Your task to perform on an android device: find which apps use the phone's location Image 0: 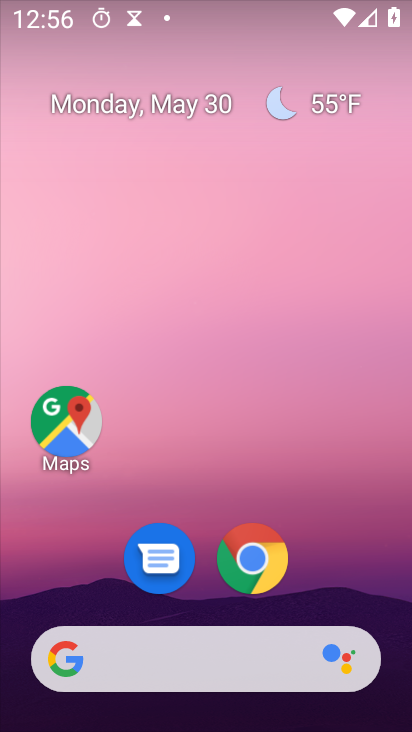
Step 0: drag from (335, 540) to (15, 345)
Your task to perform on an android device: find which apps use the phone's location Image 1: 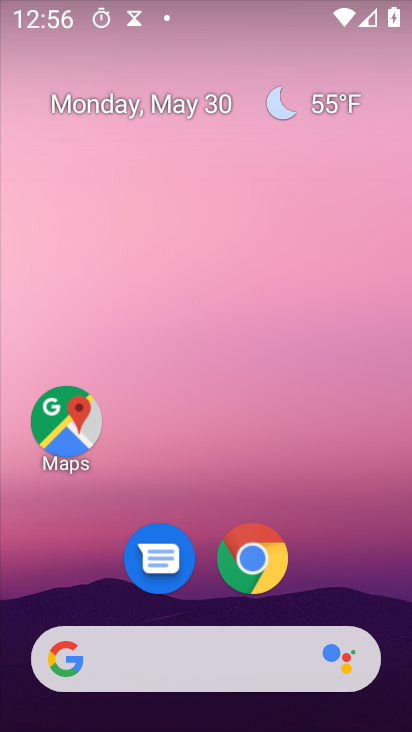
Step 1: drag from (324, 456) to (308, 76)
Your task to perform on an android device: find which apps use the phone's location Image 2: 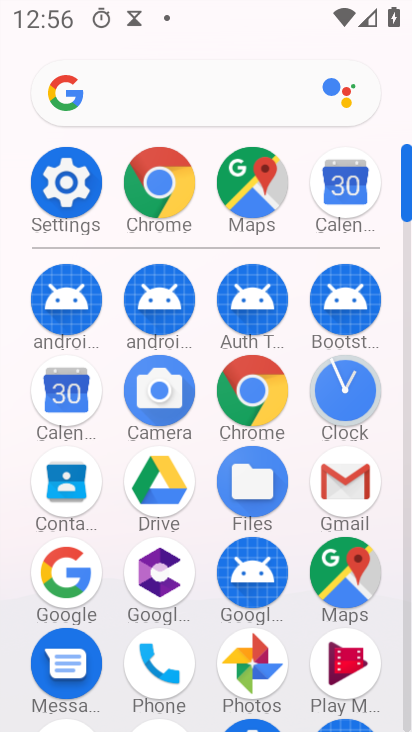
Step 2: click (72, 188)
Your task to perform on an android device: find which apps use the phone's location Image 3: 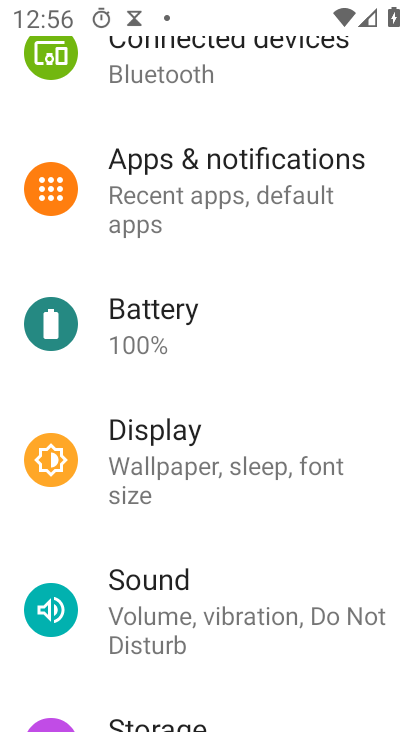
Step 3: drag from (200, 253) to (227, 628)
Your task to perform on an android device: find which apps use the phone's location Image 4: 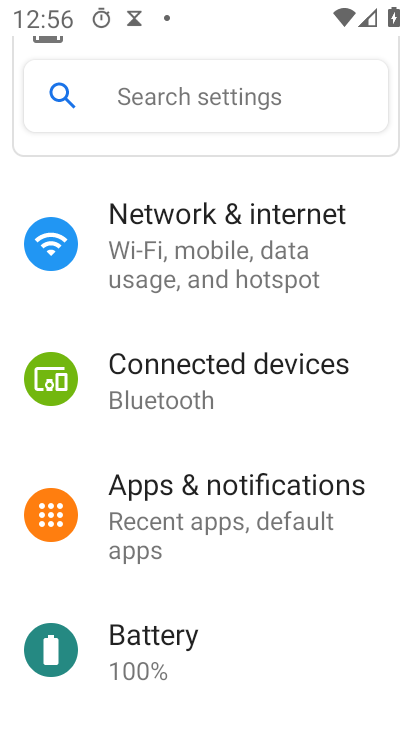
Step 4: drag from (280, 611) to (283, 189)
Your task to perform on an android device: find which apps use the phone's location Image 5: 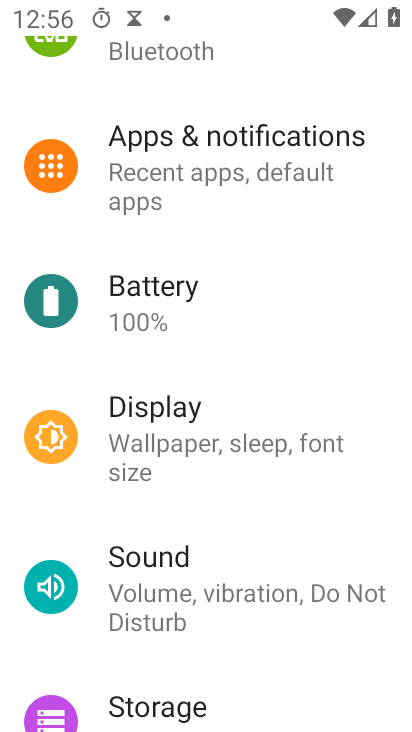
Step 5: drag from (209, 574) to (246, 169)
Your task to perform on an android device: find which apps use the phone's location Image 6: 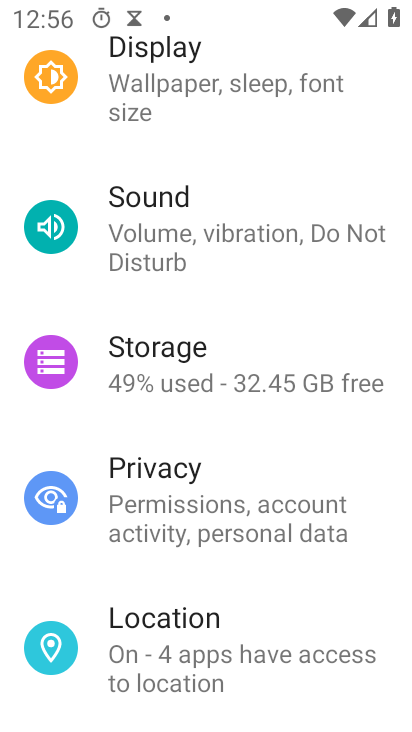
Step 6: click (199, 668)
Your task to perform on an android device: find which apps use the phone's location Image 7: 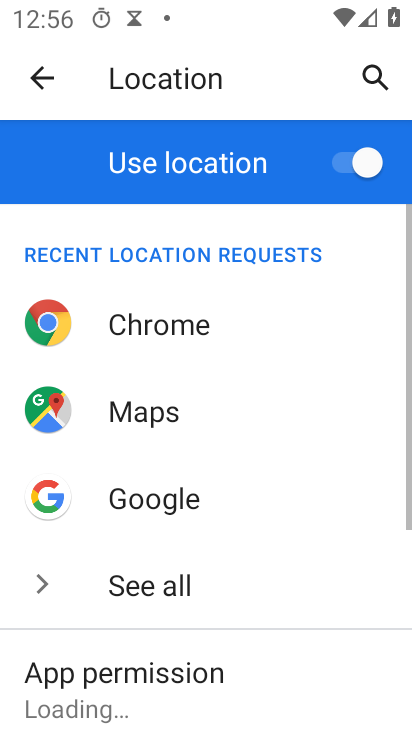
Step 7: drag from (199, 665) to (241, 213)
Your task to perform on an android device: find which apps use the phone's location Image 8: 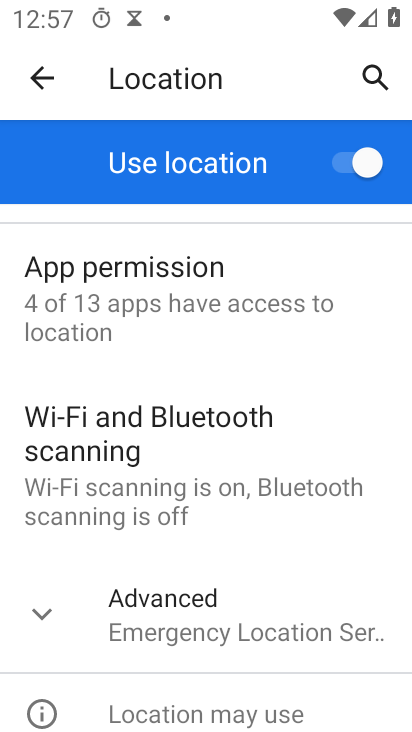
Step 8: drag from (224, 476) to (254, 239)
Your task to perform on an android device: find which apps use the phone's location Image 9: 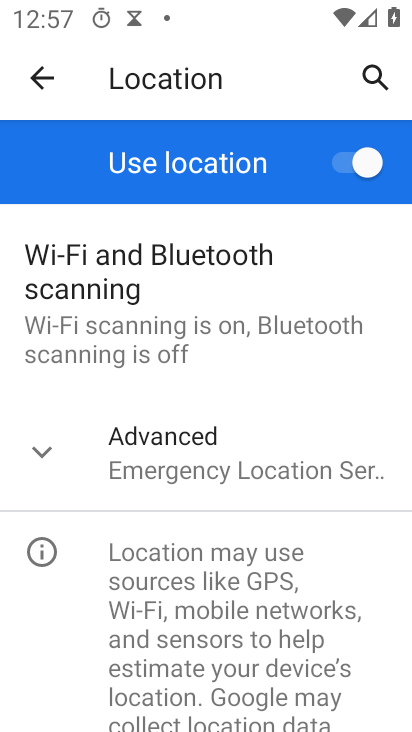
Step 9: click (188, 469)
Your task to perform on an android device: find which apps use the phone's location Image 10: 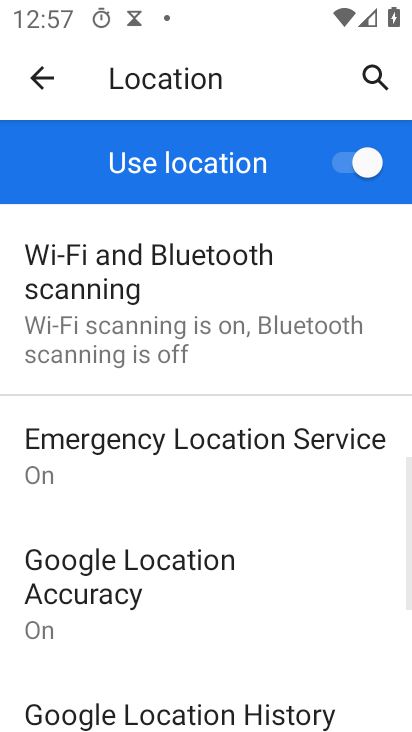
Step 10: drag from (247, 370) to (213, 681)
Your task to perform on an android device: find which apps use the phone's location Image 11: 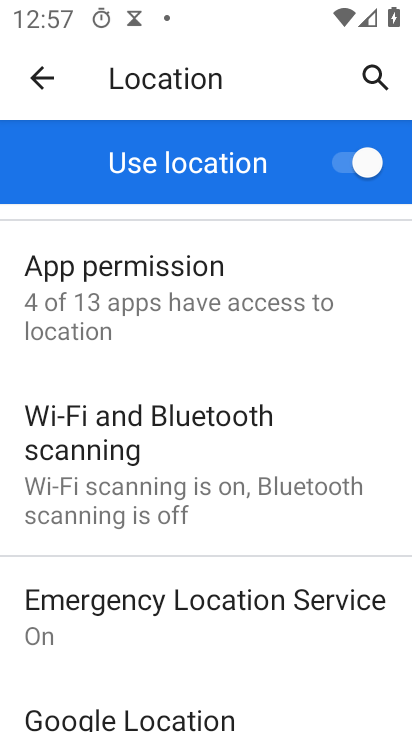
Step 11: click (212, 270)
Your task to perform on an android device: find which apps use the phone's location Image 12: 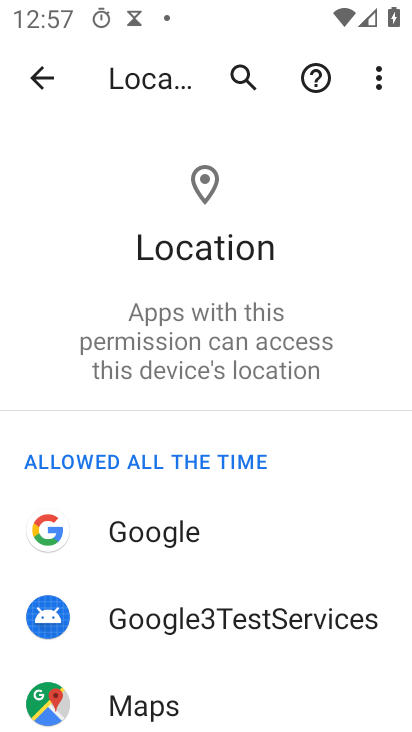
Step 12: task complete